Your task to perform on an android device: When is my next meeting? Image 0: 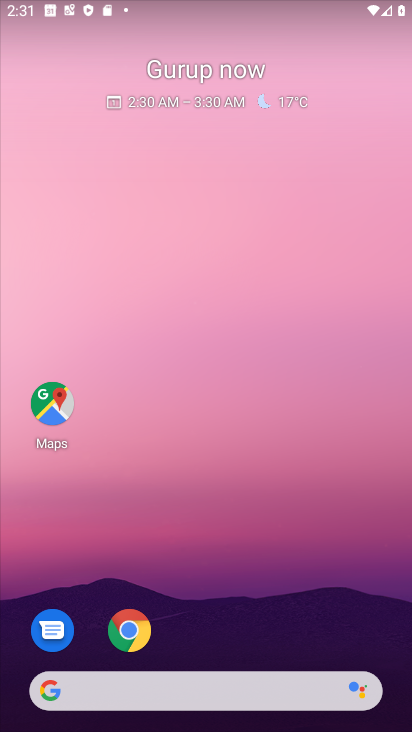
Step 0: drag from (258, 567) to (258, 16)
Your task to perform on an android device: When is my next meeting? Image 1: 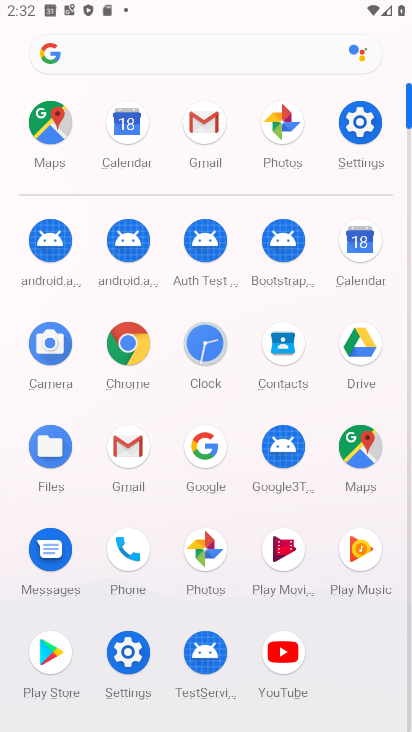
Step 1: click (133, 124)
Your task to perform on an android device: When is my next meeting? Image 2: 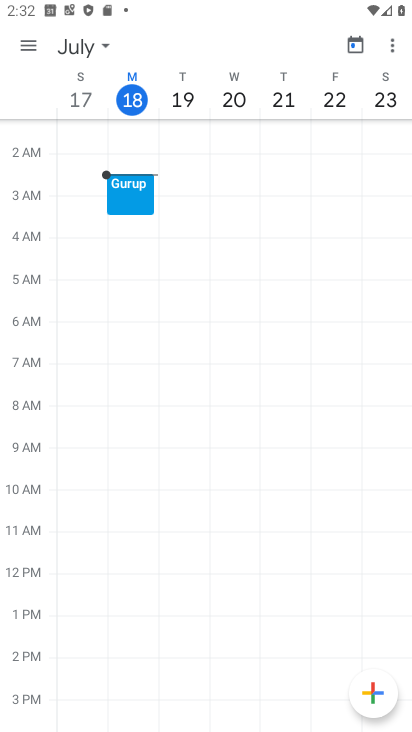
Step 2: click (134, 191)
Your task to perform on an android device: When is my next meeting? Image 3: 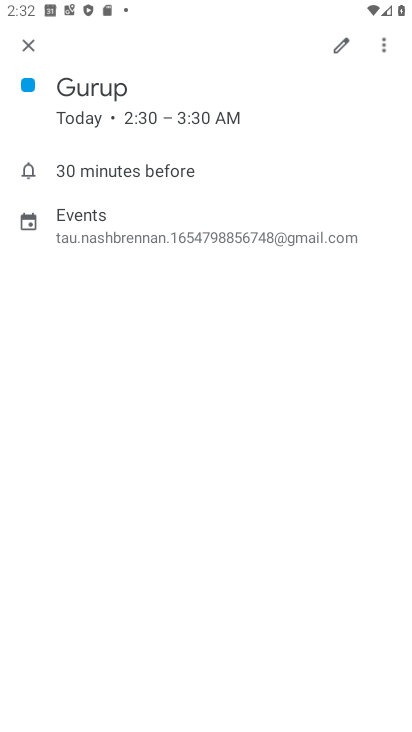
Step 3: task complete